Your task to perform on an android device: allow cookies in the chrome app Image 0: 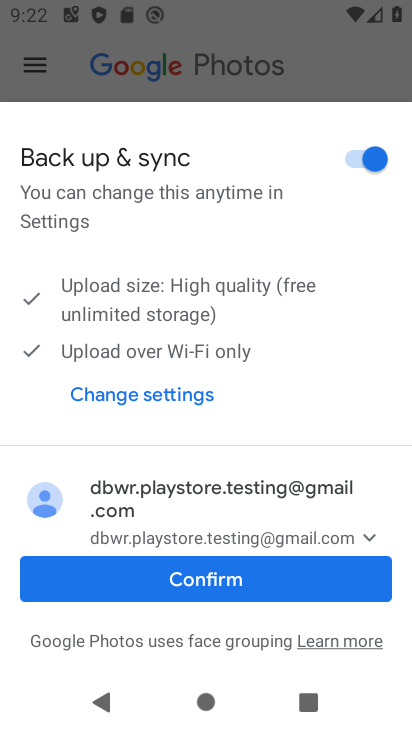
Step 0: press home button
Your task to perform on an android device: allow cookies in the chrome app Image 1: 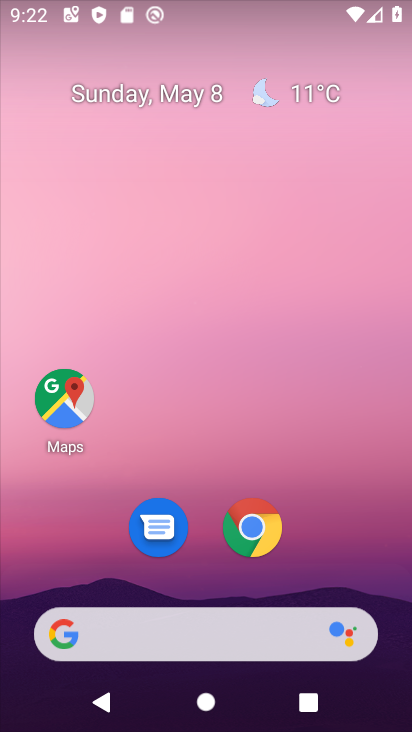
Step 1: click (258, 524)
Your task to perform on an android device: allow cookies in the chrome app Image 2: 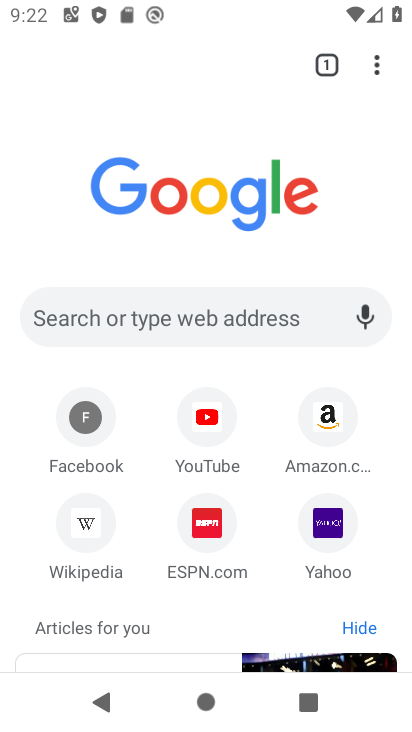
Step 2: click (379, 61)
Your task to perform on an android device: allow cookies in the chrome app Image 3: 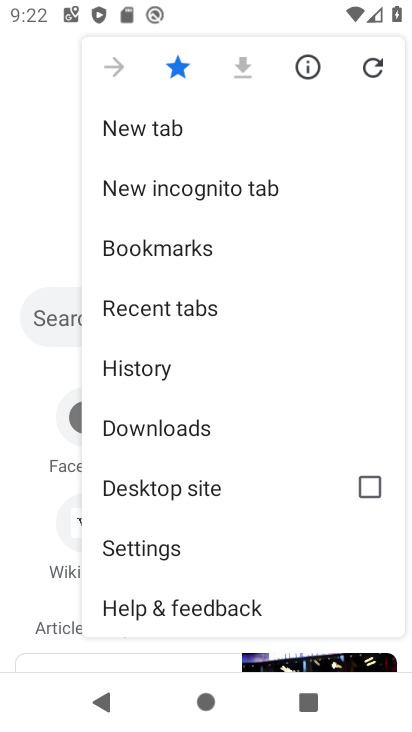
Step 3: click (138, 551)
Your task to perform on an android device: allow cookies in the chrome app Image 4: 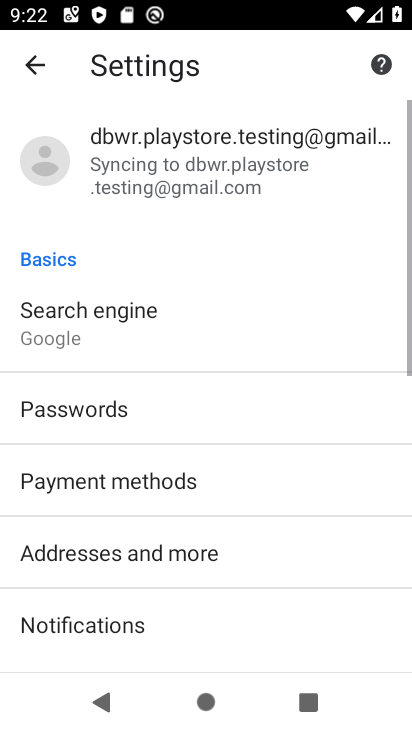
Step 4: drag from (183, 595) to (181, 237)
Your task to perform on an android device: allow cookies in the chrome app Image 5: 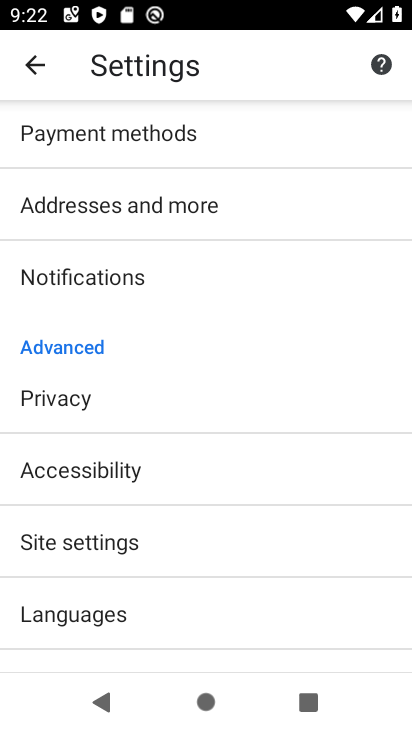
Step 5: click (125, 547)
Your task to perform on an android device: allow cookies in the chrome app Image 6: 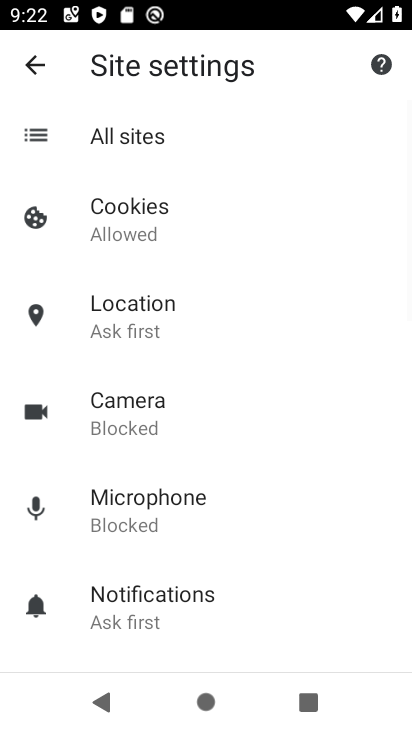
Step 6: click (157, 218)
Your task to perform on an android device: allow cookies in the chrome app Image 7: 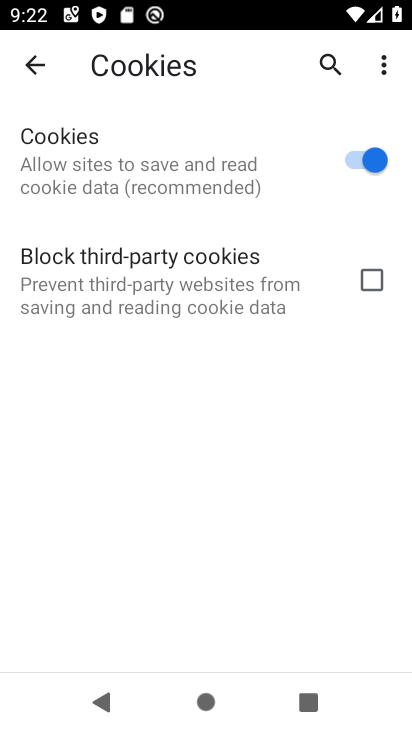
Step 7: task complete